Your task to perform on an android device: set the timer Image 0: 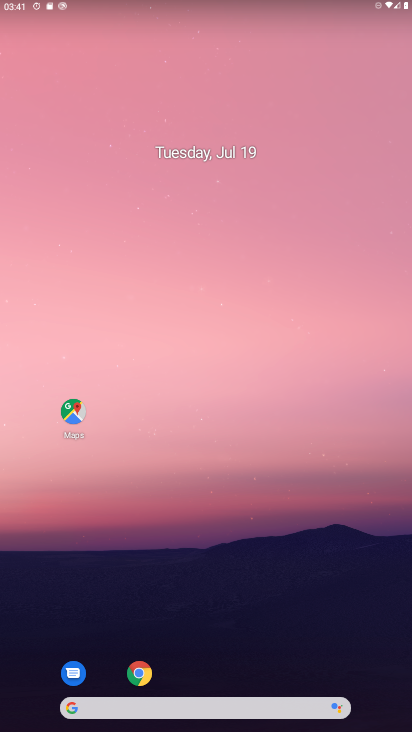
Step 0: drag from (208, 620) to (234, 76)
Your task to perform on an android device: set the timer Image 1: 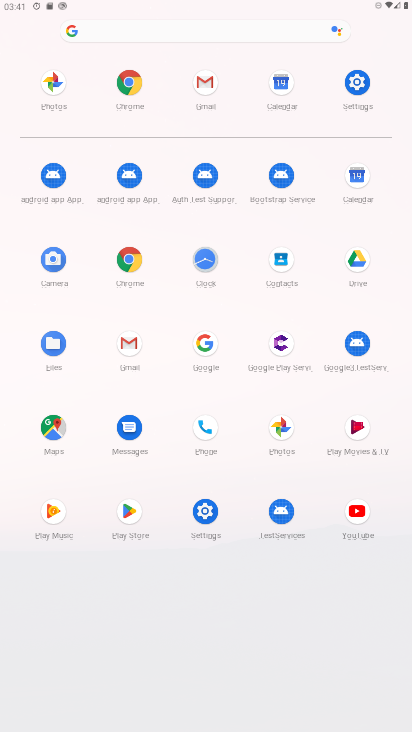
Step 1: click (192, 519)
Your task to perform on an android device: set the timer Image 2: 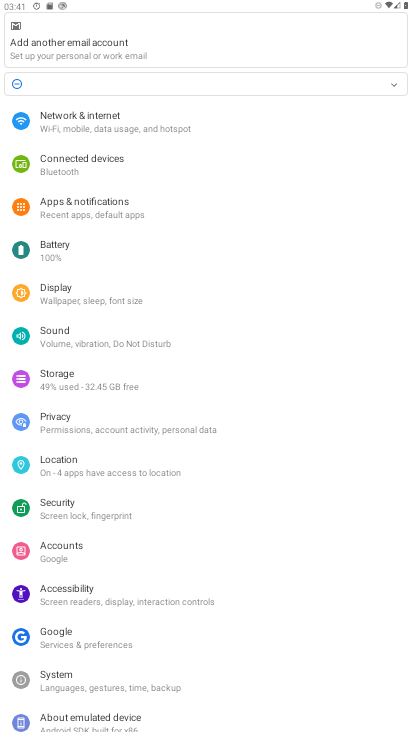
Step 2: press home button
Your task to perform on an android device: set the timer Image 3: 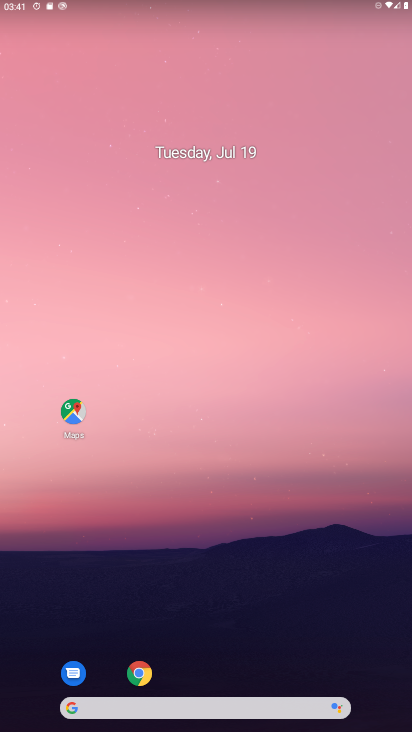
Step 3: drag from (211, 623) to (262, 5)
Your task to perform on an android device: set the timer Image 4: 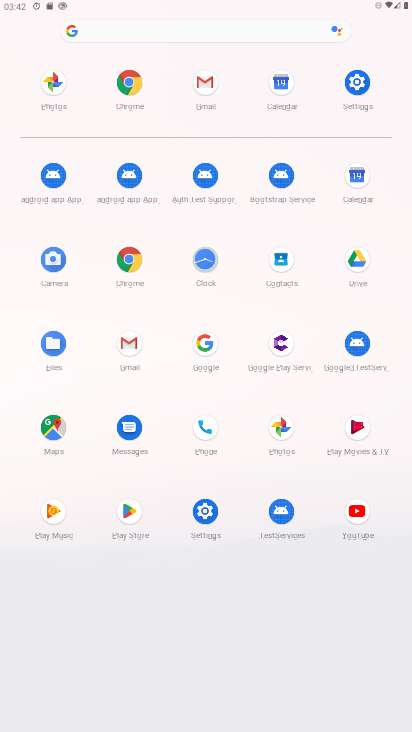
Step 4: click (208, 264)
Your task to perform on an android device: set the timer Image 5: 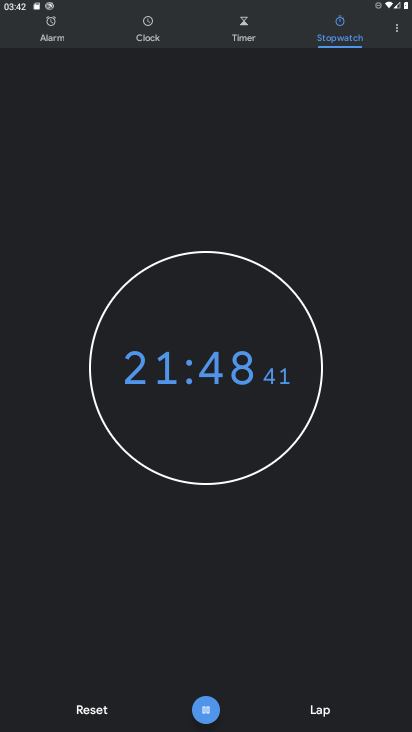
Step 5: click (248, 37)
Your task to perform on an android device: set the timer Image 6: 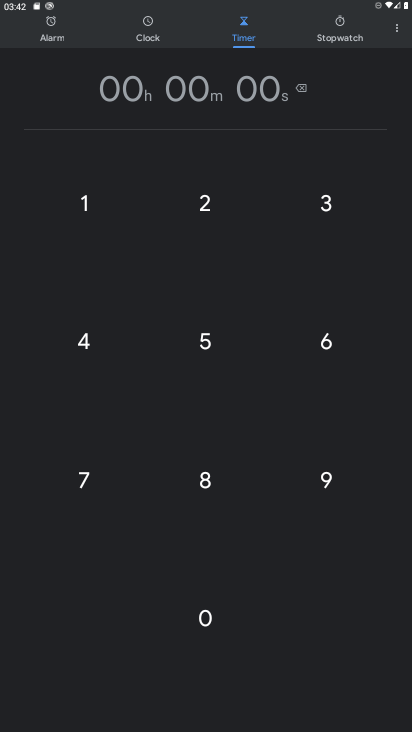
Step 6: click (83, 500)
Your task to perform on an android device: set the timer Image 7: 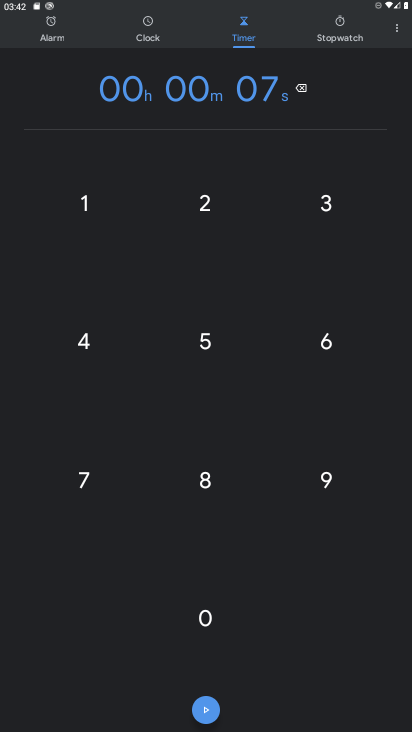
Step 7: click (78, 360)
Your task to perform on an android device: set the timer Image 8: 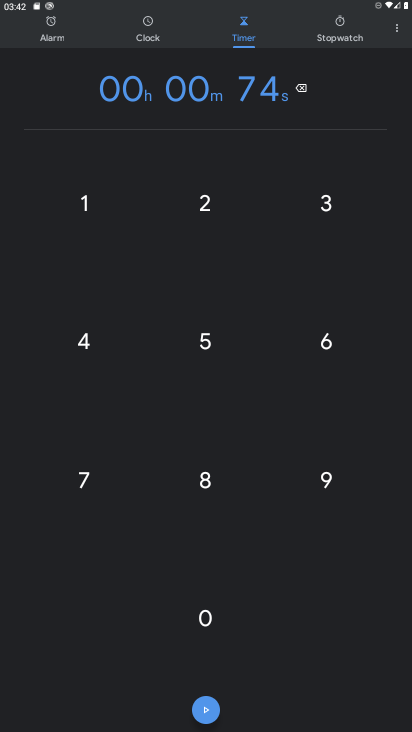
Step 8: click (328, 199)
Your task to perform on an android device: set the timer Image 9: 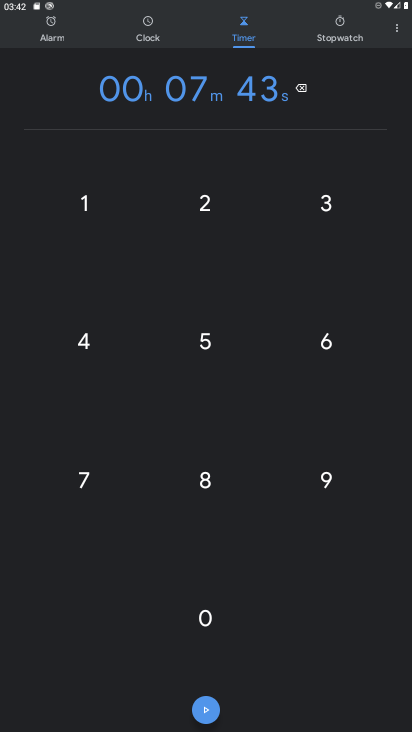
Step 9: click (208, 706)
Your task to perform on an android device: set the timer Image 10: 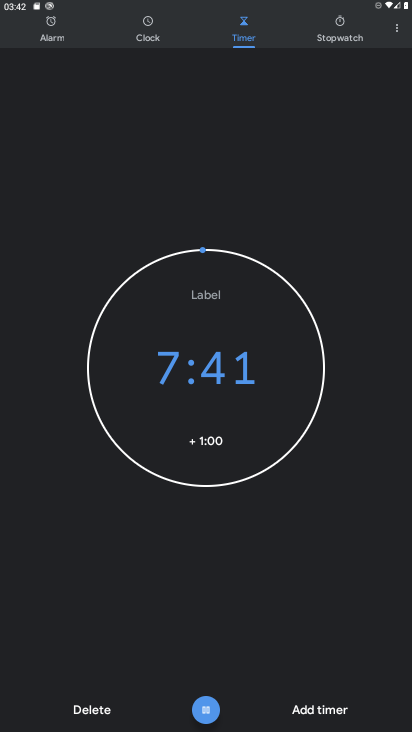
Step 10: task complete